Your task to perform on an android device: turn on notifications settings in the gmail app Image 0: 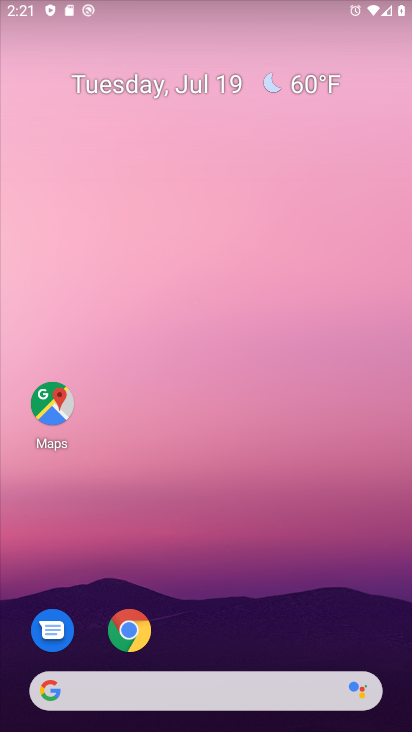
Step 0: drag from (268, 619) to (214, 385)
Your task to perform on an android device: turn on notifications settings in the gmail app Image 1: 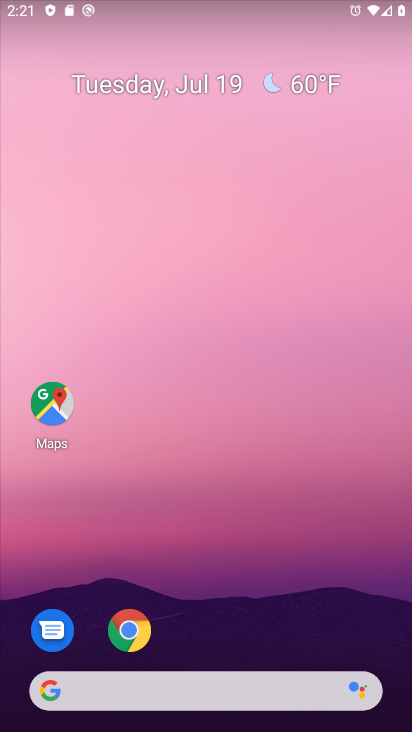
Step 1: drag from (268, 683) to (190, 357)
Your task to perform on an android device: turn on notifications settings in the gmail app Image 2: 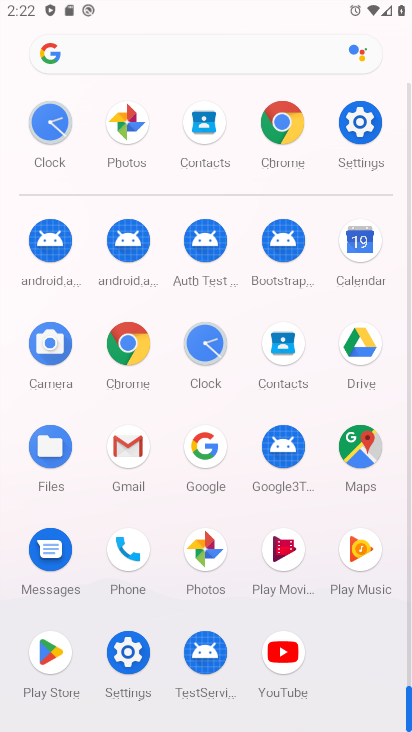
Step 2: click (127, 449)
Your task to perform on an android device: turn on notifications settings in the gmail app Image 3: 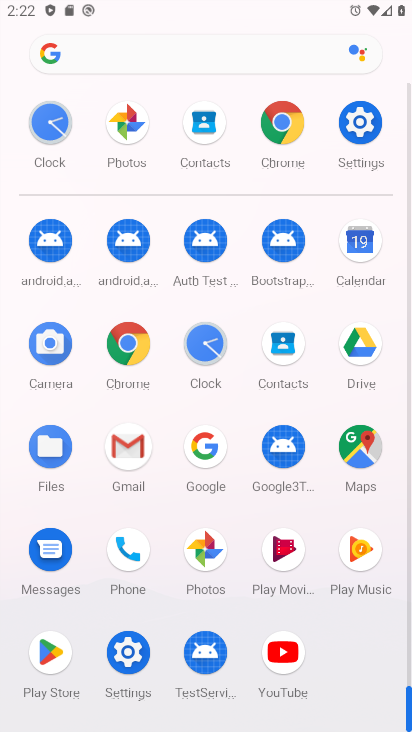
Step 3: click (116, 445)
Your task to perform on an android device: turn on notifications settings in the gmail app Image 4: 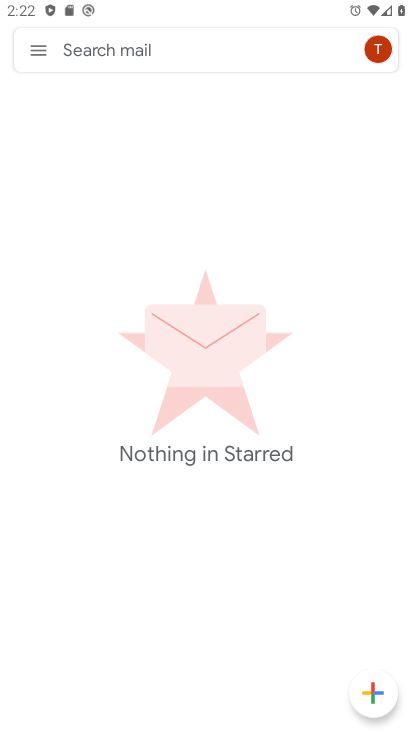
Step 4: click (36, 50)
Your task to perform on an android device: turn on notifications settings in the gmail app Image 5: 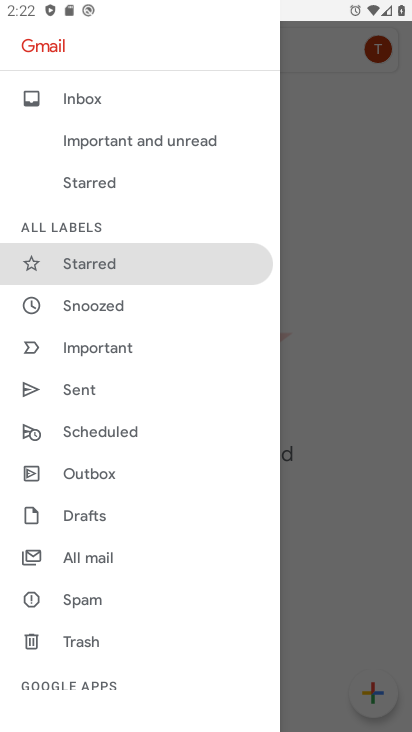
Step 5: drag from (136, 441) to (108, 135)
Your task to perform on an android device: turn on notifications settings in the gmail app Image 6: 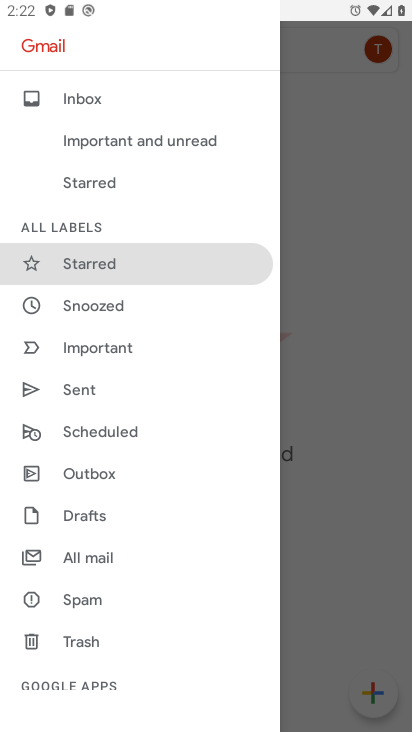
Step 6: drag from (115, 577) to (132, 0)
Your task to perform on an android device: turn on notifications settings in the gmail app Image 7: 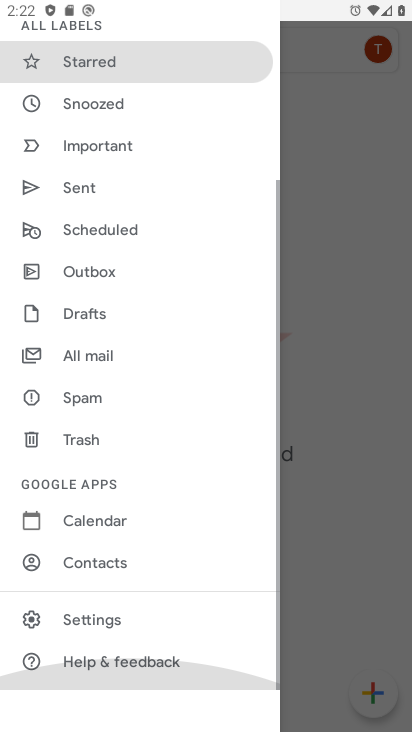
Step 7: drag from (120, 378) to (71, 85)
Your task to perform on an android device: turn on notifications settings in the gmail app Image 8: 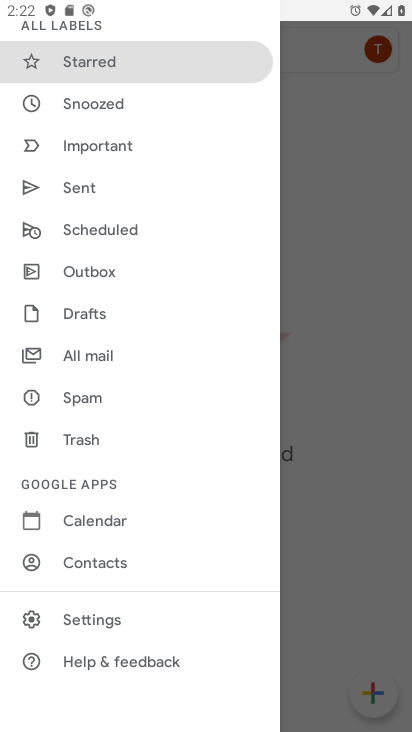
Step 8: click (80, 613)
Your task to perform on an android device: turn on notifications settings in the gmail app Image 9: 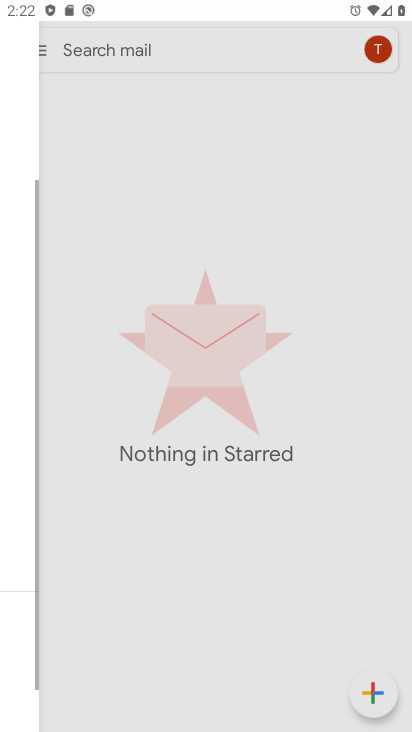
Step 9: click (80, 615)
Your task to perform on an android device: turn on notifications settings in the gmail app Image 10: 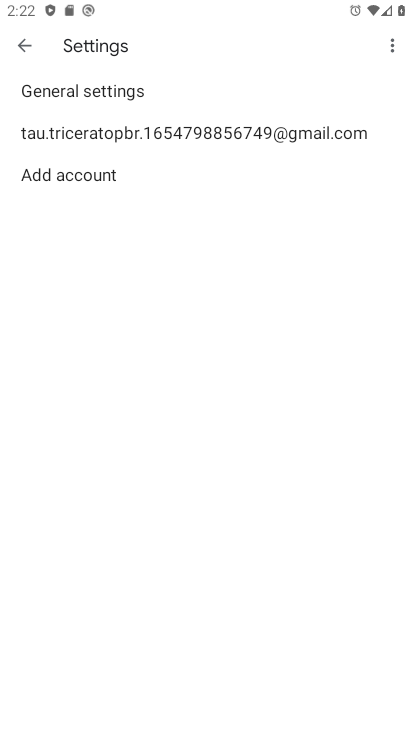
Step 10: click (127, 137)
Your task to perform on an android device: turn on notifications settings in the gmail app Image 11: 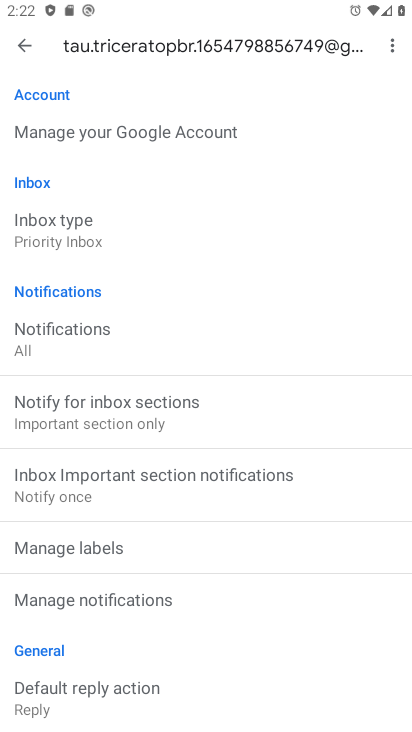
Step 11: click (55, 328)
Your task to perform on an android device: turn on notifications settings in the gmail app Image 12: 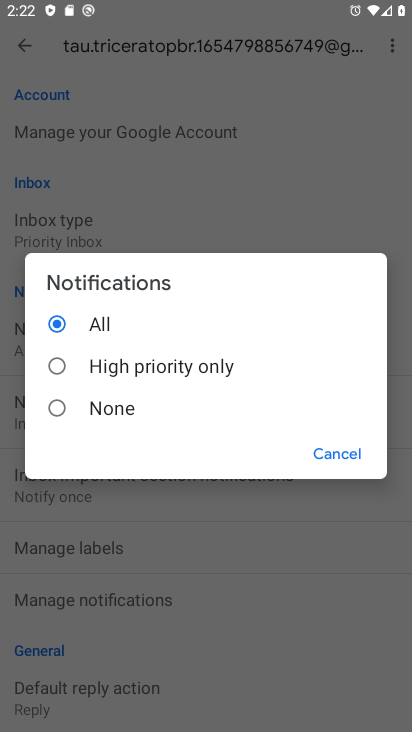
Step 12: click (333, 449)
Your task to perform on an android device: turn on notifications settings in the gmail app Image 13: 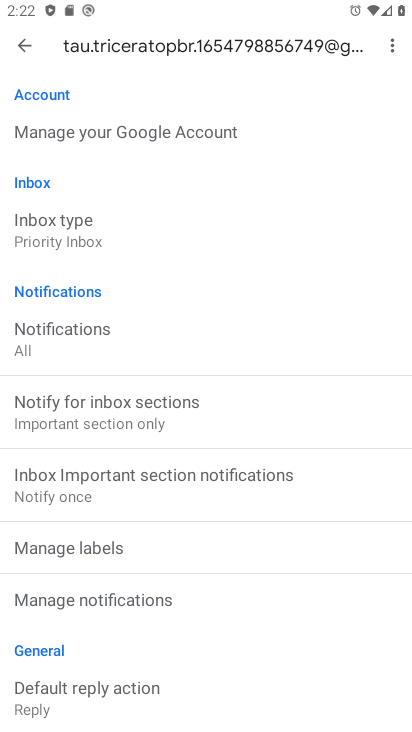
Step 13: task complete